Your task to perform on an android device: change the clock style Image 0: 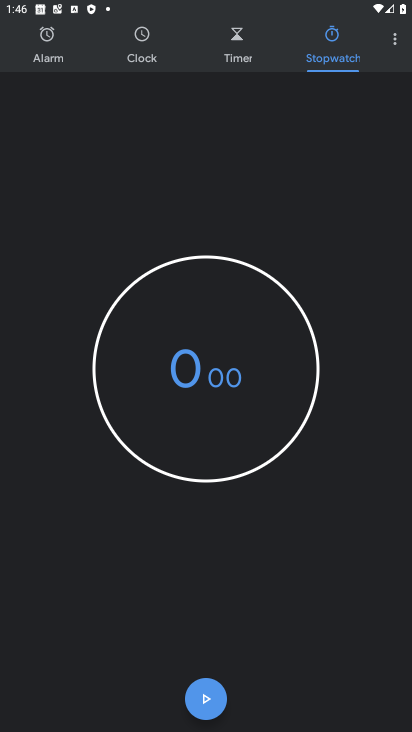
Step 0: click (398, 43)
Your task to perform on an android device: change the clock style Image 1: 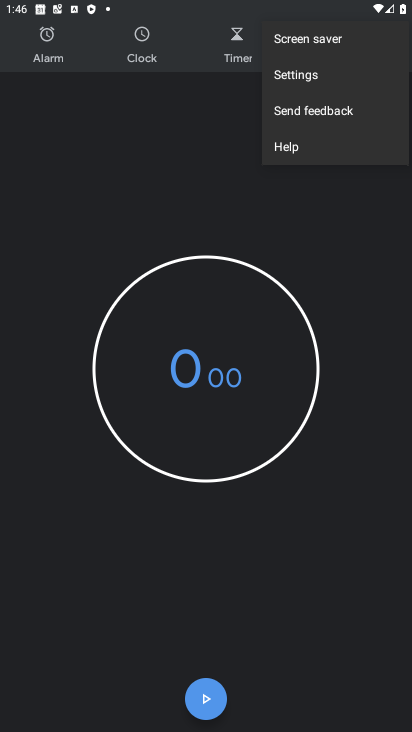
Step 1: click (312, 79)
Your task to perform on an android device: change the clock style Image 2: 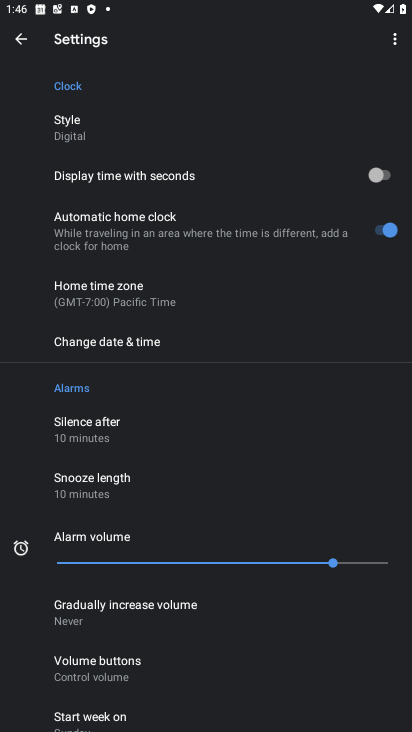
Step 2: click (95, 141)
Your task to perform on an android device: change the clock style Image 3: 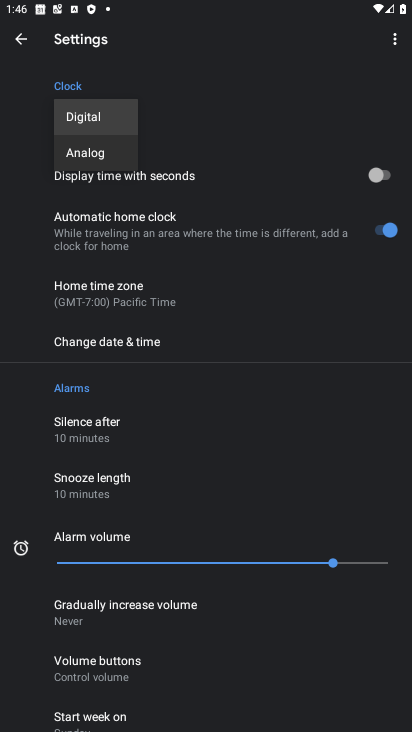
Step 3: click (95, 161)
Your task to perform on an android device: change the clock style Image 4: 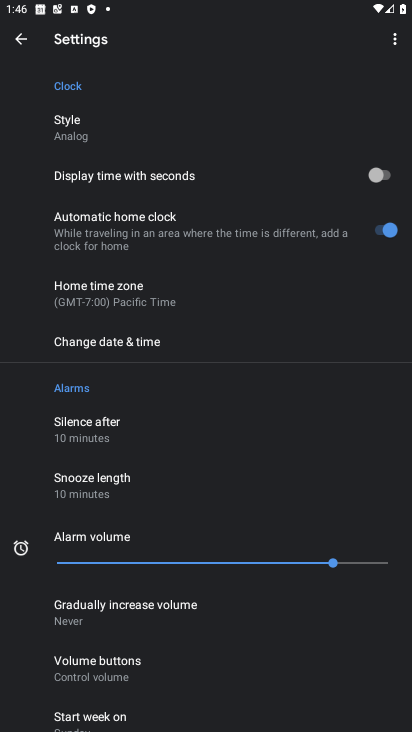
Step 4: task complete